Your task to perform on an android device: manage bookmarks in the chrome app Image 0: 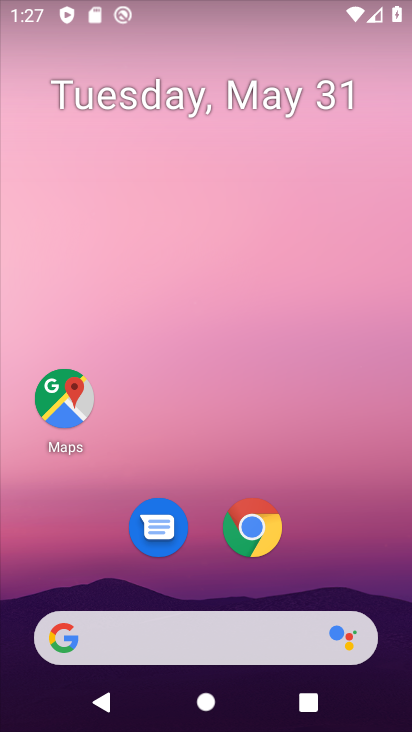
Step 0: drag from (355, 497) to (312, 146)
Your task to perform on an android device: manage bookmarks in the chrome app Image 1: 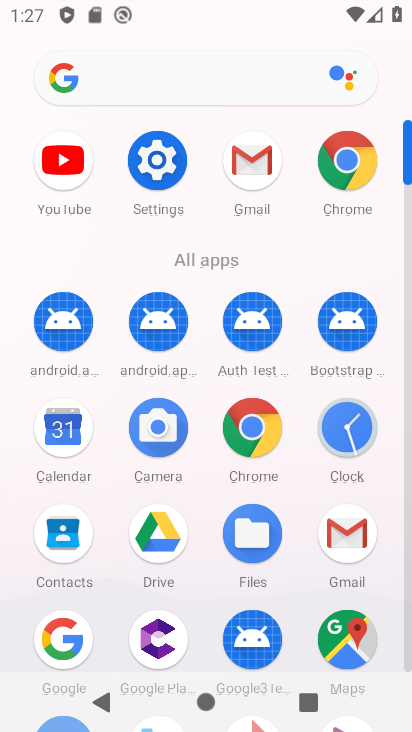
Step 1: click (338, 168)
Your task to perform on an android device: manage bookmarks in the chrome app Image 2: 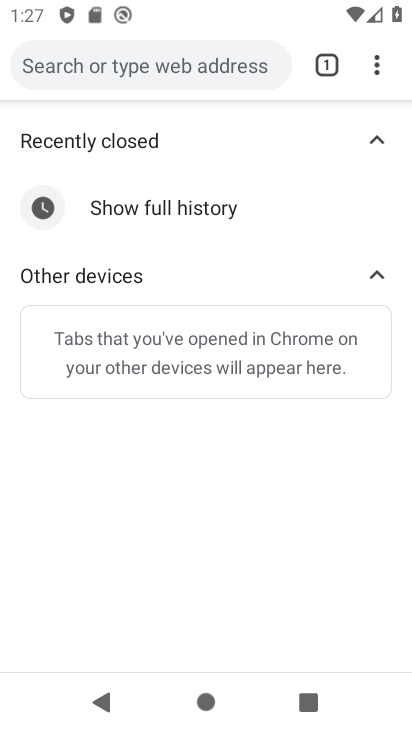
Step 2: task complete